Your task to perform on an android device: Go to CNN.com Image 0: 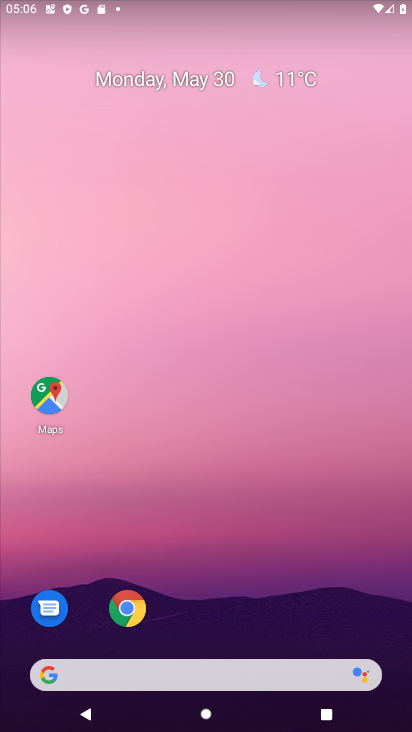
Step 0: drag from (196, 652) to (191, 367)
Your task to perform on an android device: Go to CNN.com Image 1: 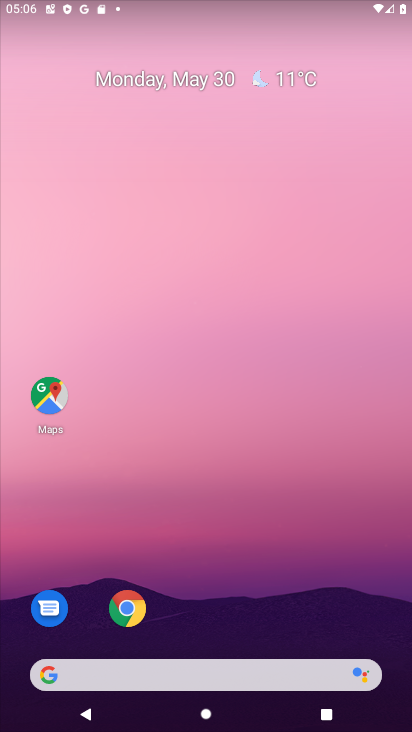
Step 1: drag from (199, 554) to (199, 234)
Your task to perform on an android device: Go to CNN.com Image 2: 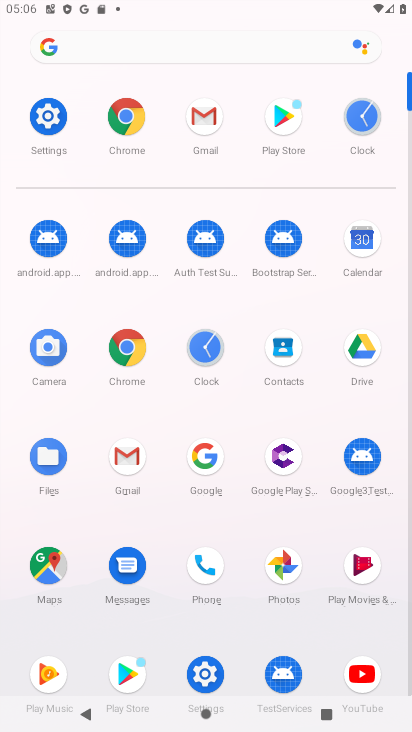
Step 2: click (211, 464)
Your task to perform on an android device: Go to CNN.com Image 3: 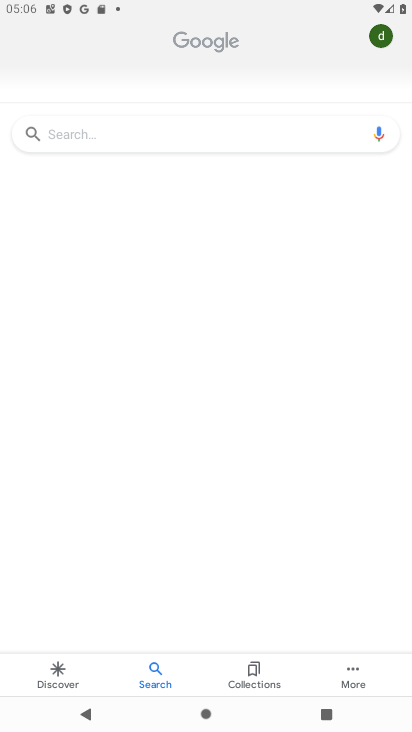
Step 3: click (161, 137)
Your task to perform on an android device: Go to CNN.com Image 4: 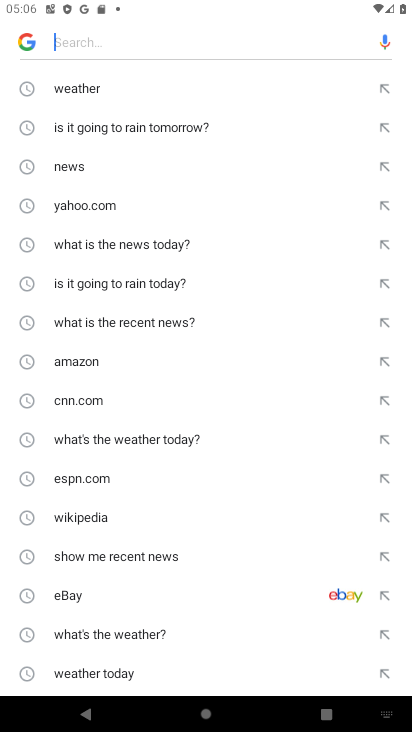
Step 4: click (84, 408)
Your task to perform on an android device: Go to CNN.com Image 5: 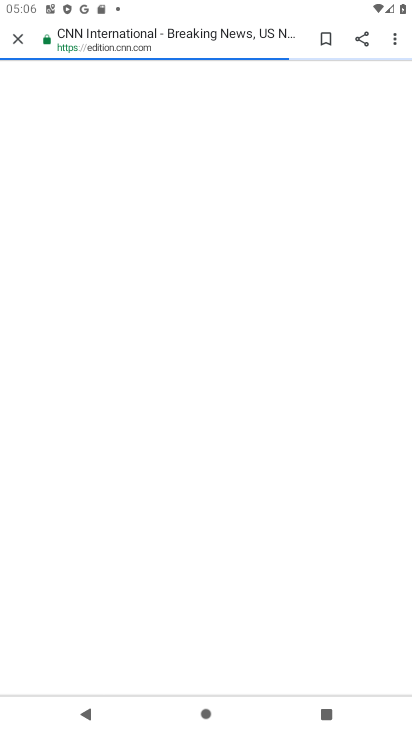
Step 5: task complete